Your task to perform on an android device: turn off javascript in the chrome app Image 0: 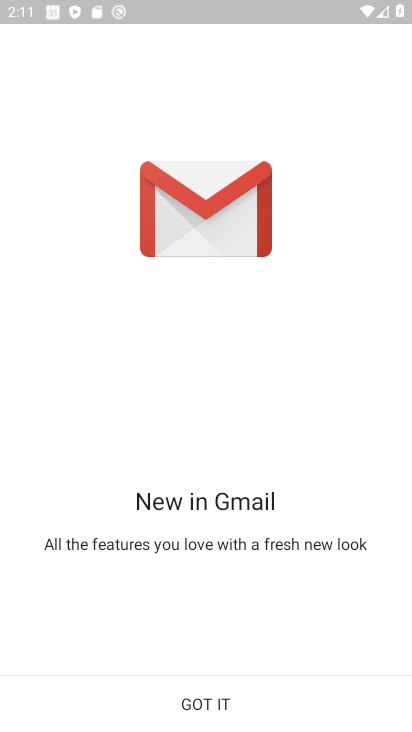
Step 0: press home button
Your task to perform on an android device: turn off javascript in the chrome app Image 1: 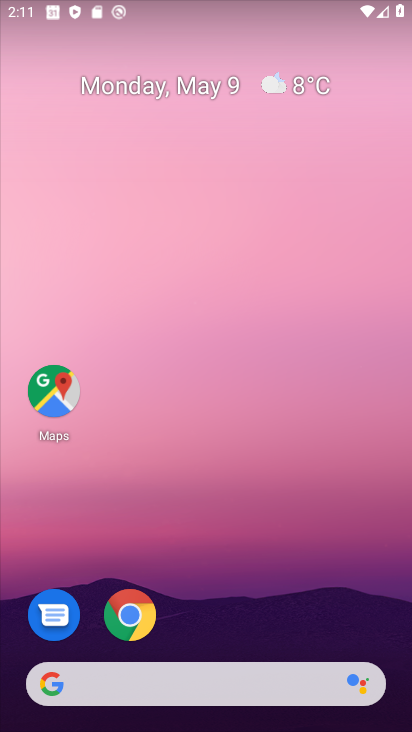
Step 1: click (138, 625)
Your task to perform on an android device: turn off javascript in the chrome app Image 2: 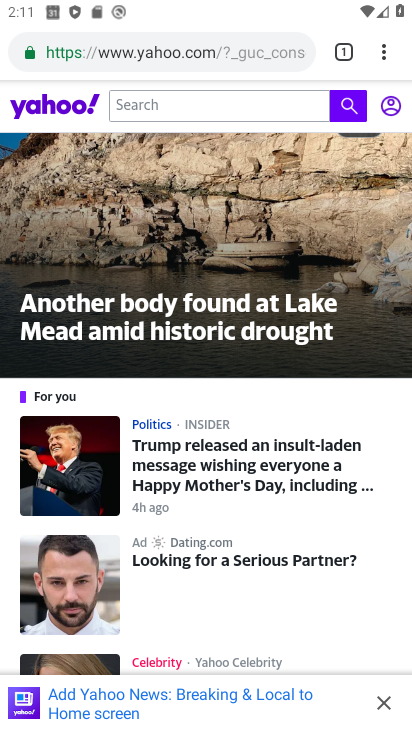
Step 2: click (377, 58)
Your task to perform on an android device: turn off javascript in the chrome app Image 3: 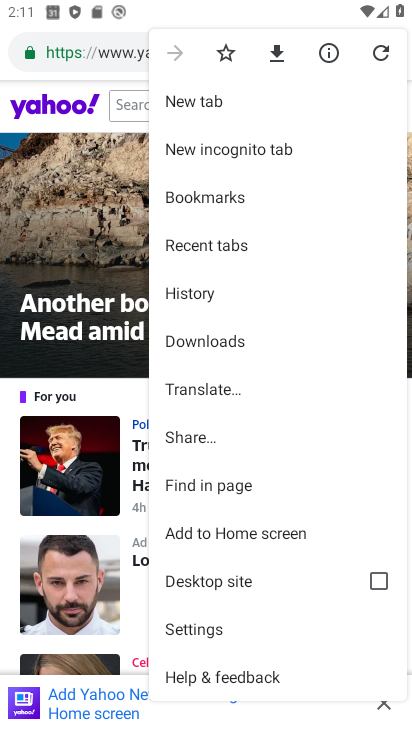
Step 3: click (260, 626)
Your task to perform on an android device: turn off javascript in the chrome app Image 4: 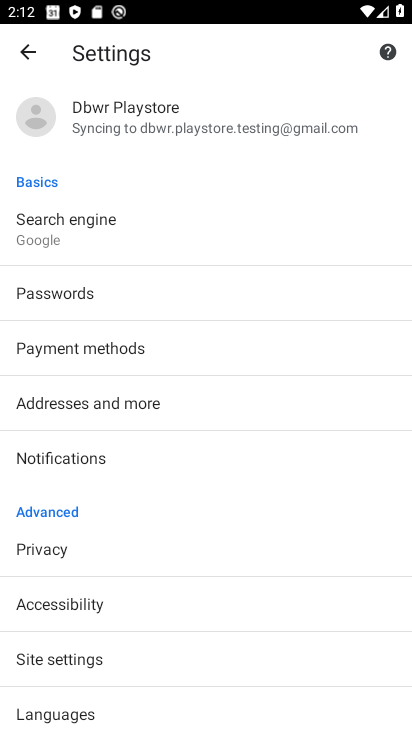
Step 4: click (258, 660)
Your task to perform on an android device: turn off javascript in the chrome app Image 5: 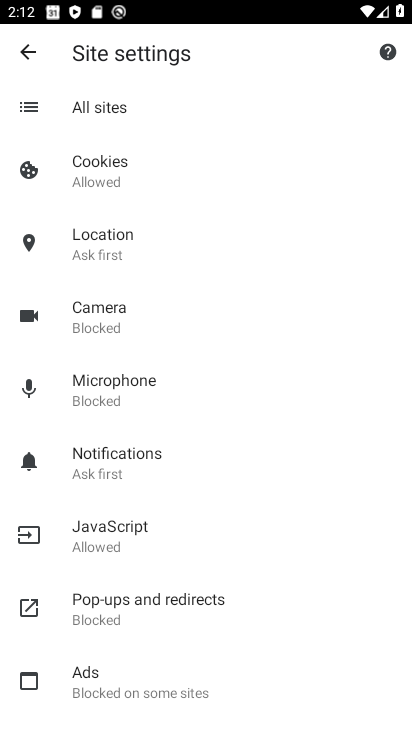
Step 5: click (219, 533)
Your task to perform on an android device: turn off javascript in the chrome app Image 6: 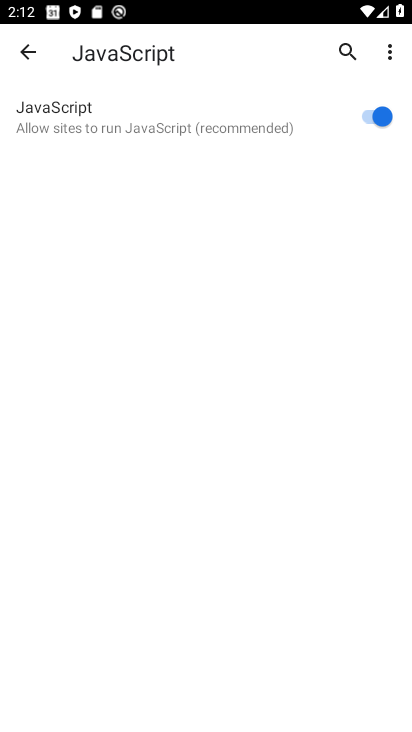
Step 6: click (372, 105)
Your task to perform on an android device: turn off javascript in the chrome app Image 7: 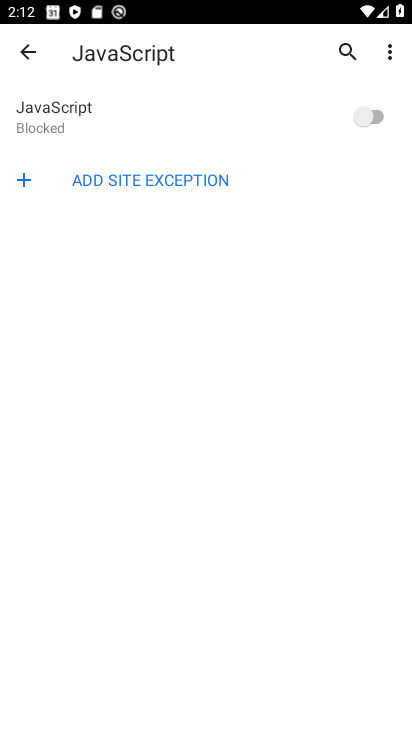
Step 7: task complete